Your task to perform on an android device: Go to eBay Image 0: 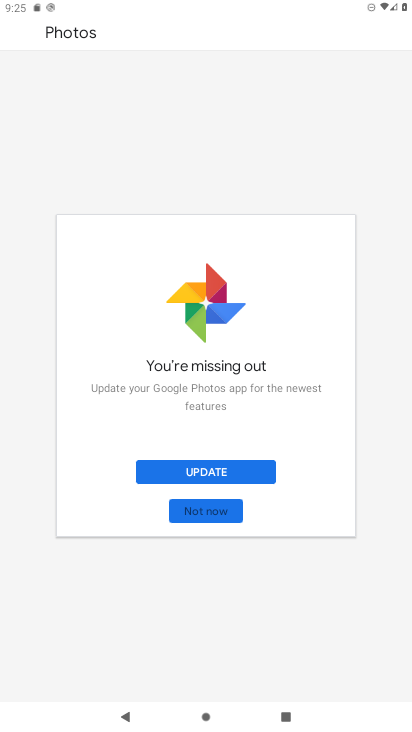
Step 0: press home button
Your task to perform on an android device: Go to eBay Image 1: 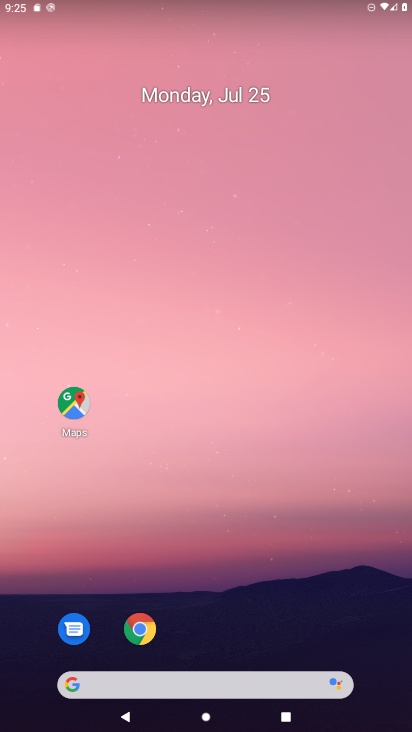
Step 1: click (140, 684)
Your task to perform on an android device: Go to eBay Image 2: 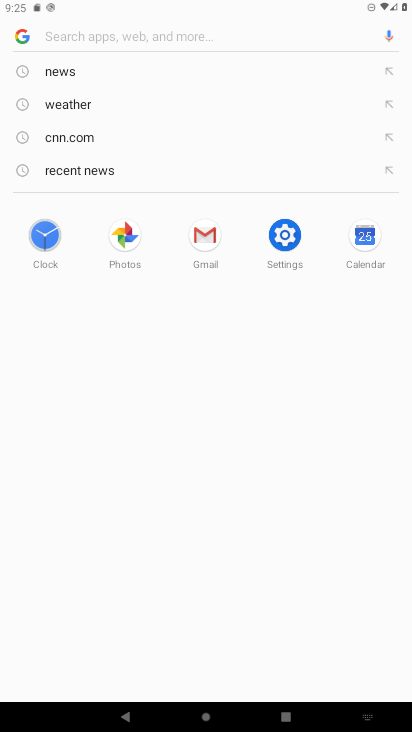
Step 2: type "ebay"
Your task to perform on an android device: Go to eBay Image 3: 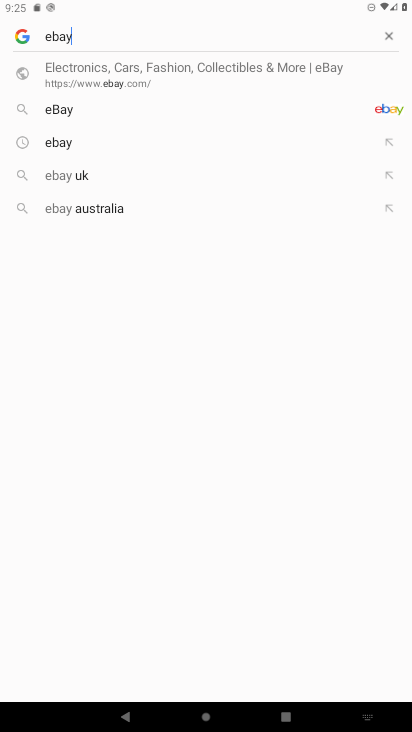
Step 3: click (61, 102)
Your task to perform on an android device: Go to eBay Image 4: 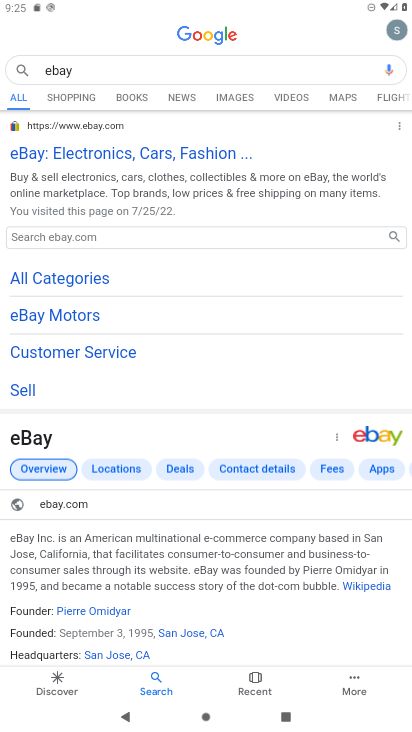
Step 4: click (58, 151)
Your task to perform on an android device: Go to eBay Image 5: 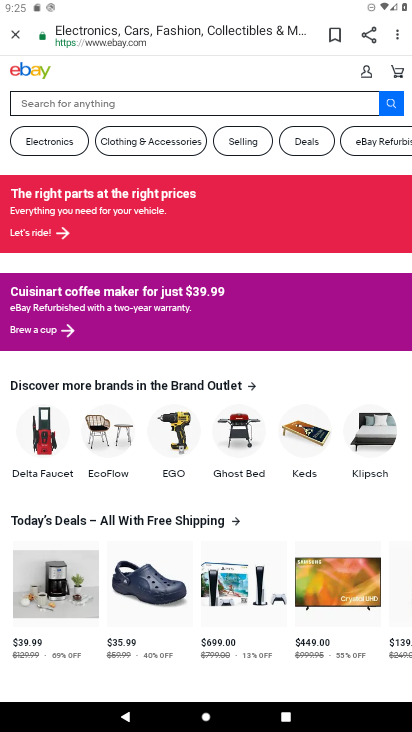
Step 5: task complete